Your task to perform on an android device: move an email to a new category in the gmail app Image 0: 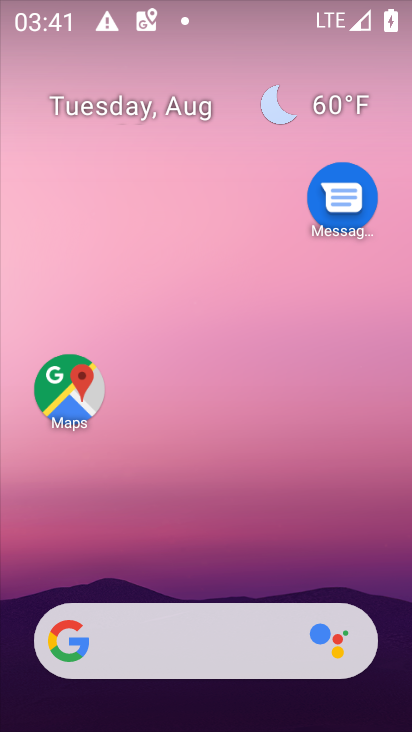
Step 0: drag from (224, 596) to (224, 74)
Your task to perform on an android device: move an email to a new category in the gmail app Image 1: 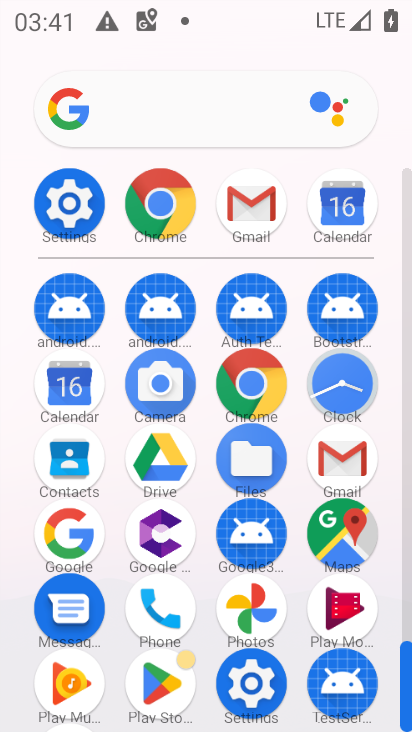
Step 1: click (252, 211)
Your task to perform on an android device: move an email to a new category in the gmail app Image 2: 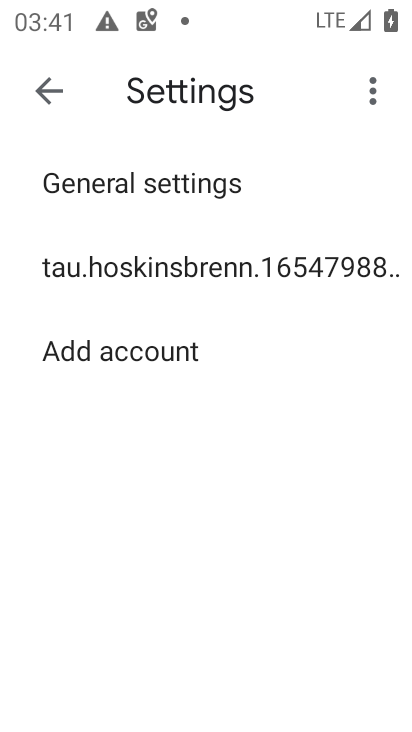
Step 2: click (48, 99)
Your task to perform on an android device: move an email to a new category in the gmail app Image 3: 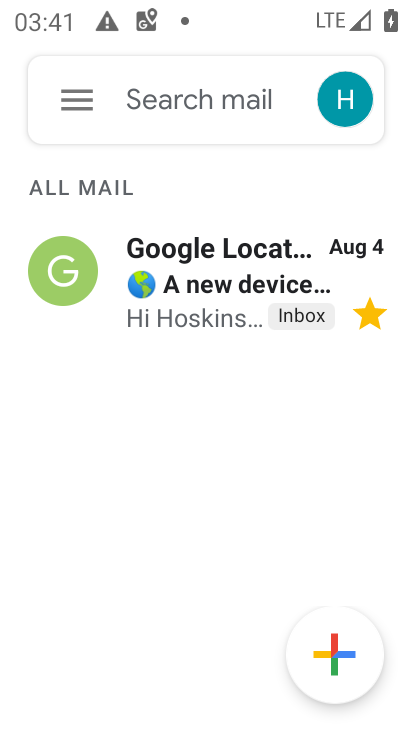
Step 3: click (82, 100)
Your task to perform on an android device: move an email to a new category in the gmail app Image 4: 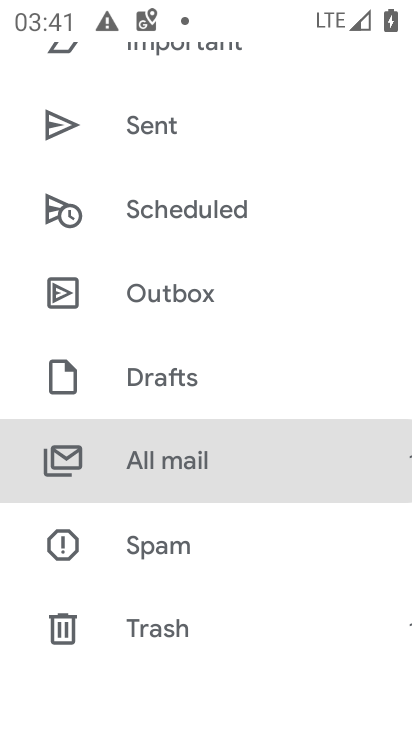
Step 4: click (173, 422)
Your task to perform on an android device: move an email to a new category in the gmail app Image 5: 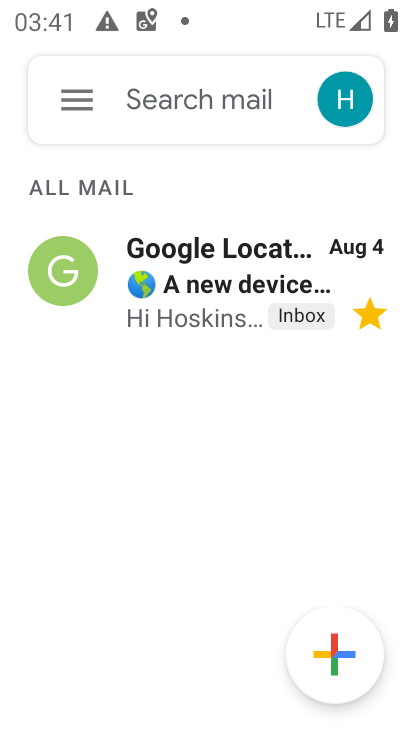
Step 5: click (188, 302)
Your task to perform on an android device: move an email to a new category in the gmail app Image 6: 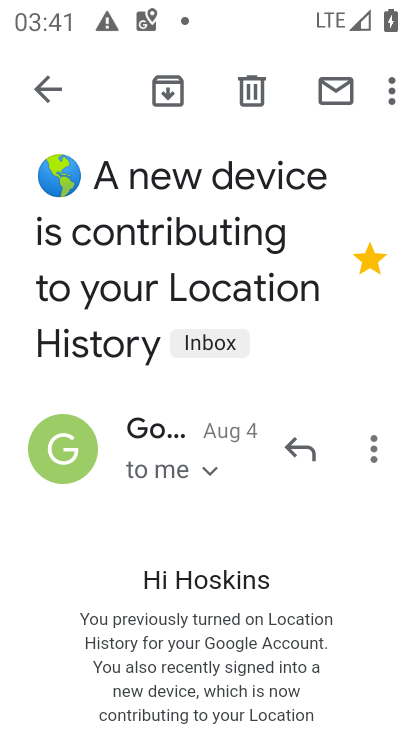
Step 6: click (390, 75)
Your task to perform on an android device: move an email to a new category in the gmail app Image 7: 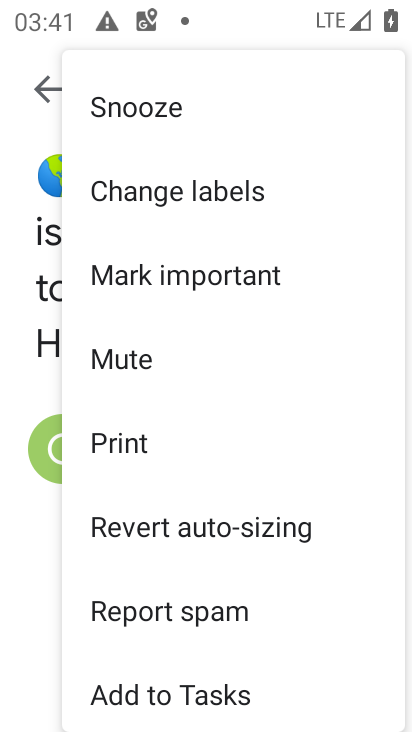
Step 7: task complete